Your task to perform on an android device: Go to CNN.com Image 0: 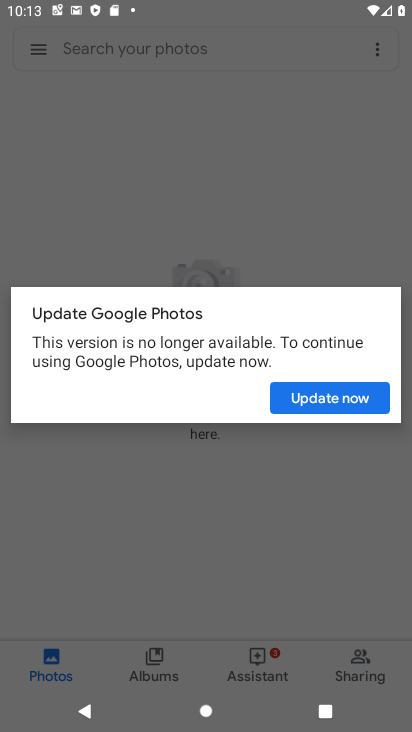
Step 0: press back button
Your task to perform on an android device: Go to CNN.com Image 1: 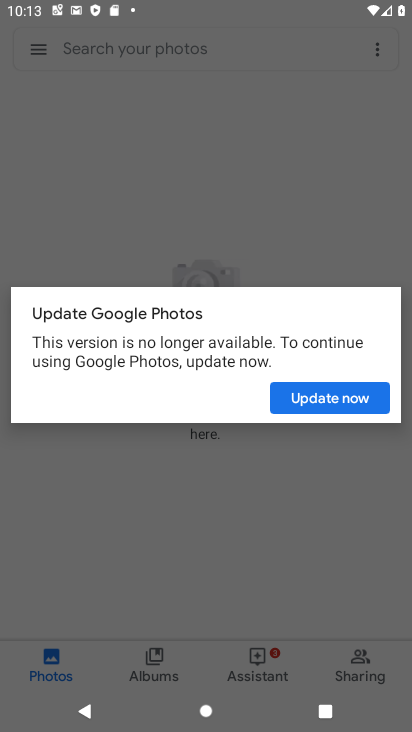
Step 1: press home button
Your task to perform on an android device: Go to CNN.com Image 2: 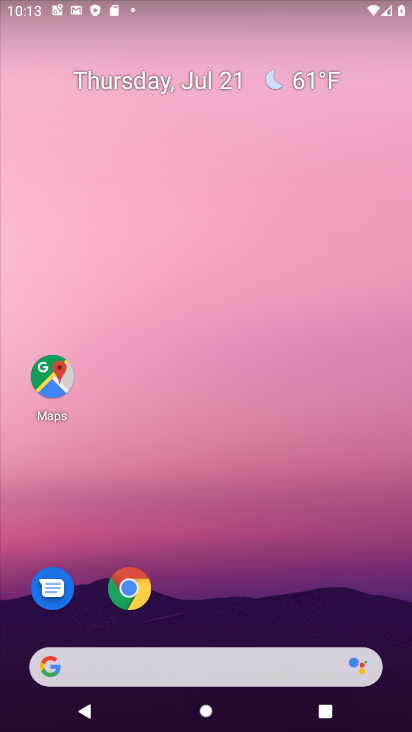
Step 2: click (132, 593)
Your task to perform on an android device: Go to CNN.com Image 3: 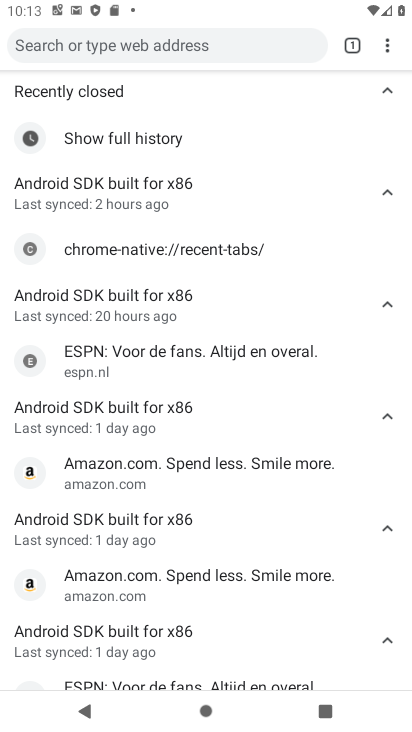
Step 3: click (356, 50)
Your task to perform on an android device: Go to CNN.com Image 4: 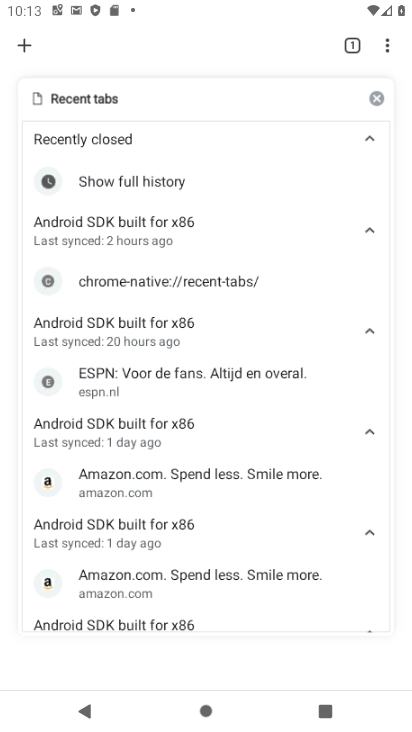
Step 4: click (26, 38)
Your task to perform on an android device: Go to CNN.com Image 5: 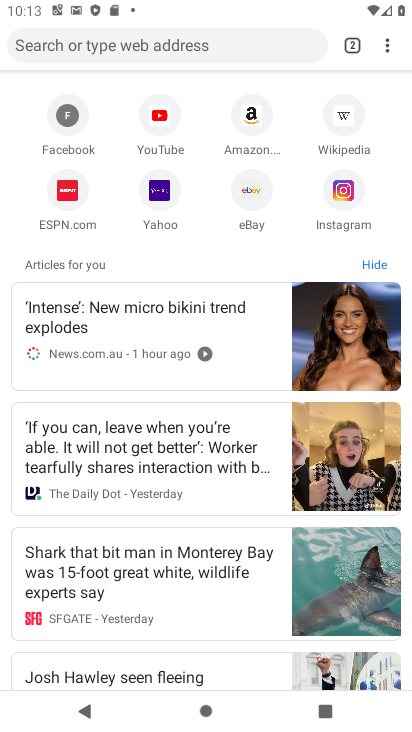
Step 5: click (151, 45)
Your task to perform on an android device: Go to CNN.com Image 6: 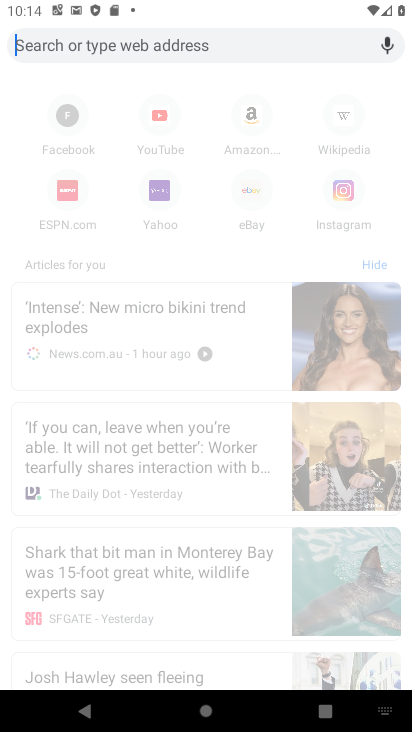
Step 6: type "cnnn.com"
Your task to perform on an android device: Go to CNN.com Image 7: 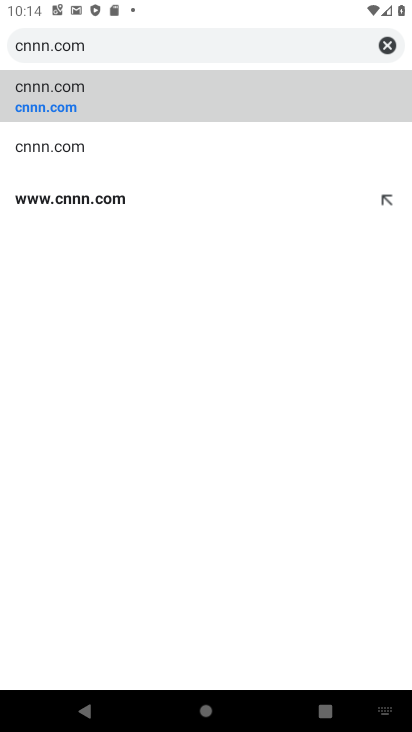
Step 7: click (384, 46)
Your task to perform on an android device: Go to CNN.com Image 8: 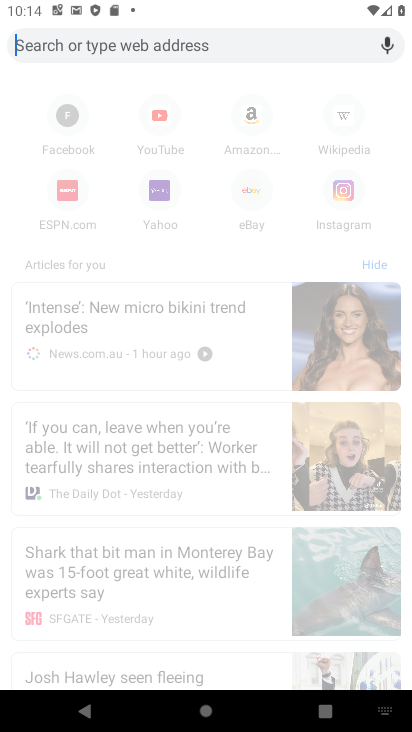
Step 8: click (67, 45)
Your task to perform on an android device: Go to CNN.com Image 9: 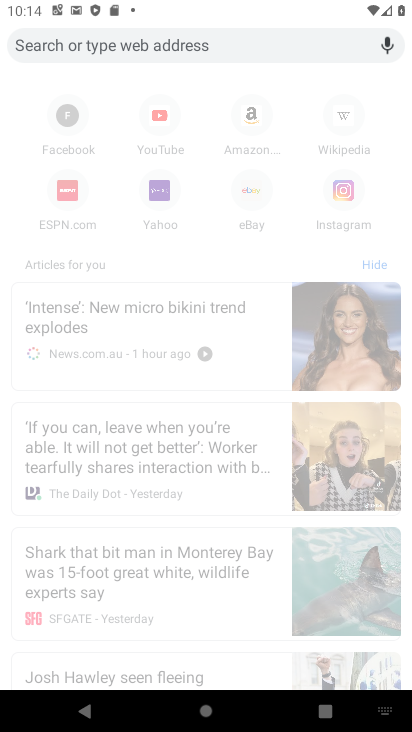
Step 9: type "cnn.com"
Your task to perform on an android device: Go to CNN.com Image 10: 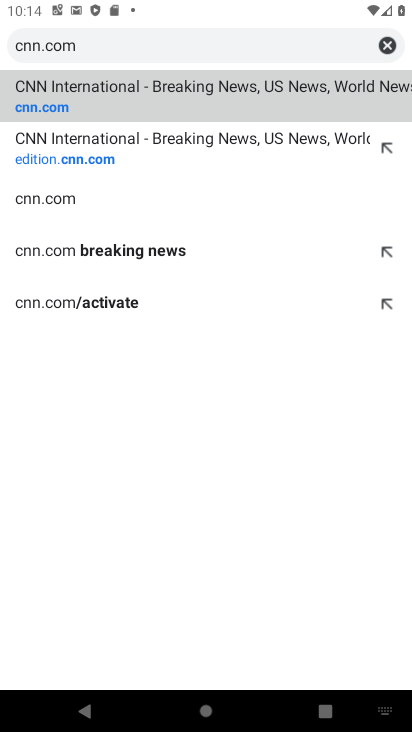
Step 10: click (199, 105)
Your task to perform on an android device: Go to CNN.com Image 11: 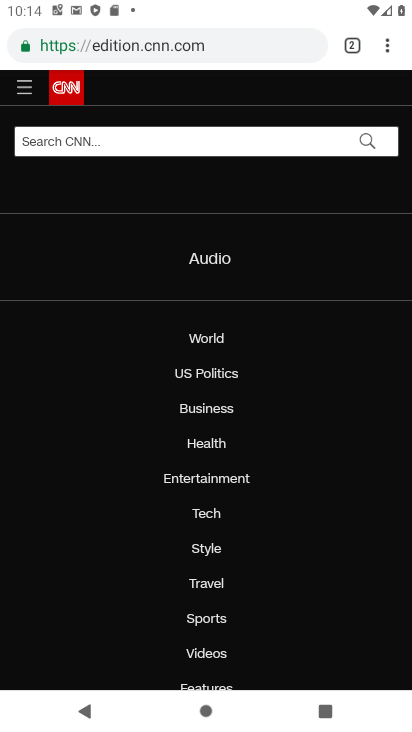
Step 11: task complete